Your task to perform on an android device: Open Youtube and go to "Your channel" Image 0: 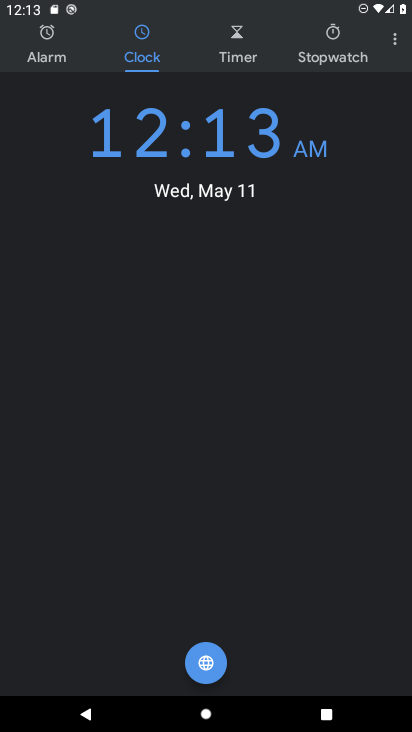
Step 0: drag from (273, 600) to (237, 121)
Your task to perform on an android device: Open Youtube and go to "Your channel" Image 1: 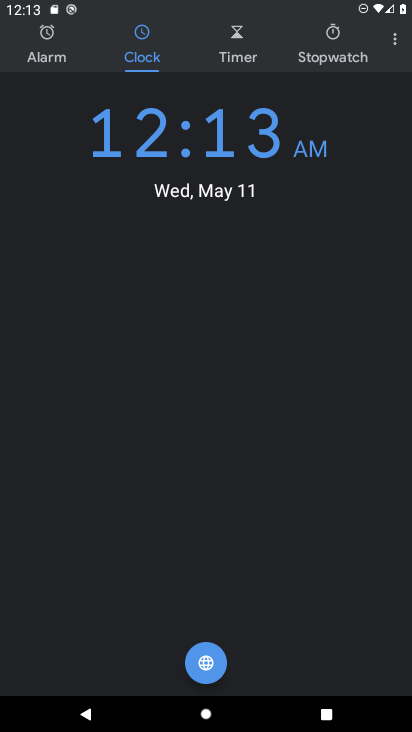
Step 1: press home button
Your task to perform on an android device: Open Youtube and go to "Your channel" Image 2: 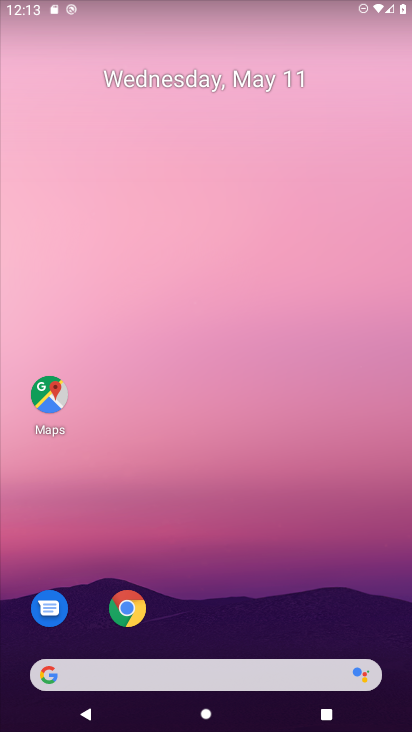
Step 2: drag from (254, 576) to (304, 46)
Your task to perform on an android device: Open Youtube and go to "Your channel" Image 3: 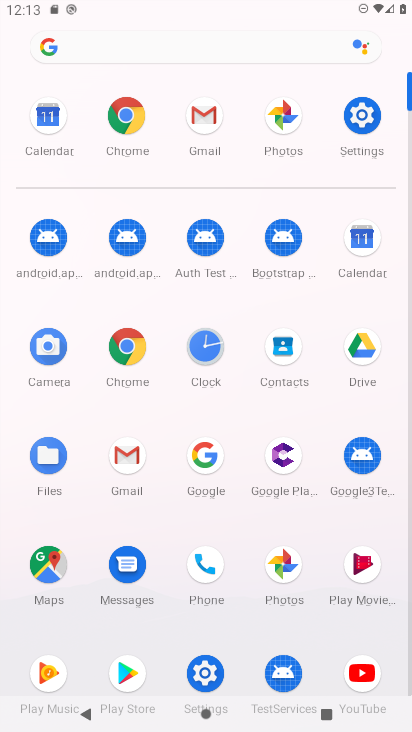
Step 3: click (357, 669)
Your task to perform on an android device: Open Youtube and go to "Your channel" Image 4: 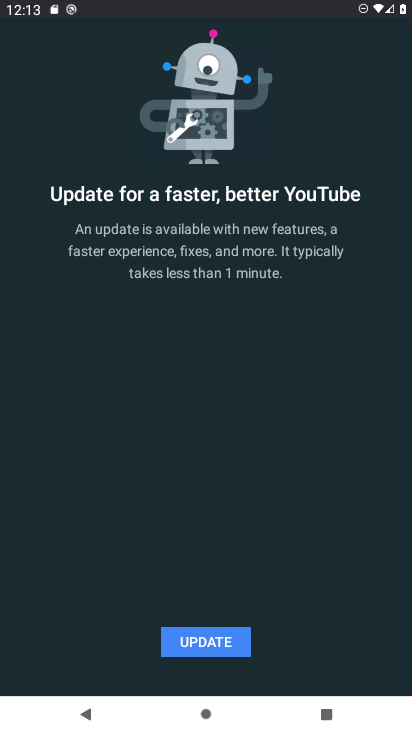
Step 4: click (234, 641)
Your task to perform on an android device: Open Youtube and go to "Your channel" Image 5: 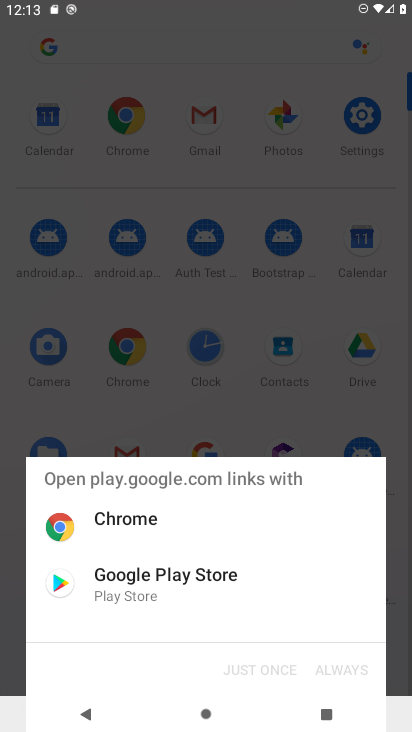
Step 5: click (148, 563)
Your task to perform on an android device: Open Youtube and go to "Your channel" Image 6: 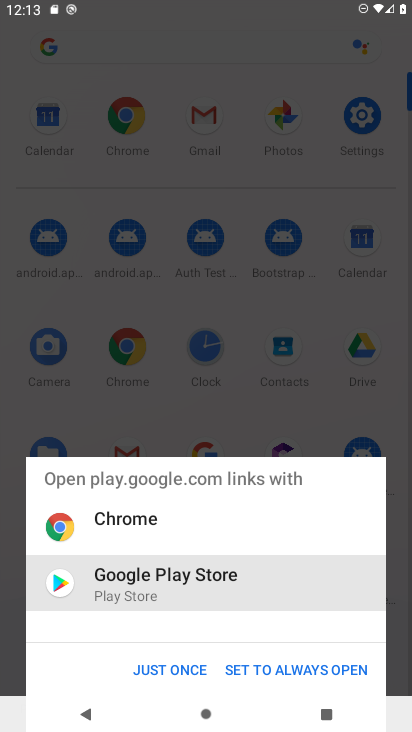
Step 6: click (179, 667)
Your task to perform on an android device: Open Youtube and go to "Your channel" Image 7: 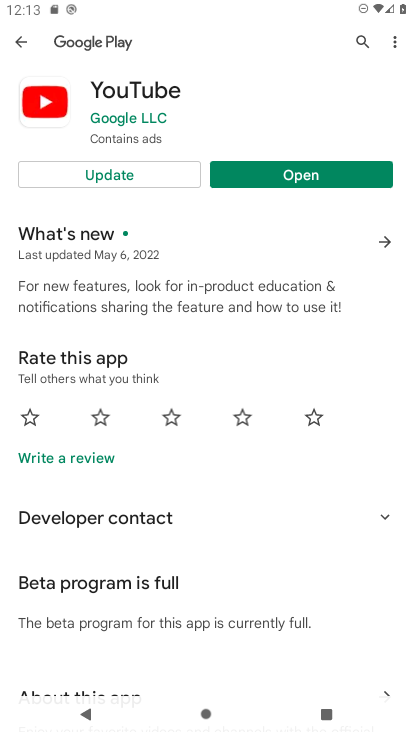
Step 7: click (258, 173)
Your task to perform on an android device: Open Youtube and go to "Your channel" Image 8: 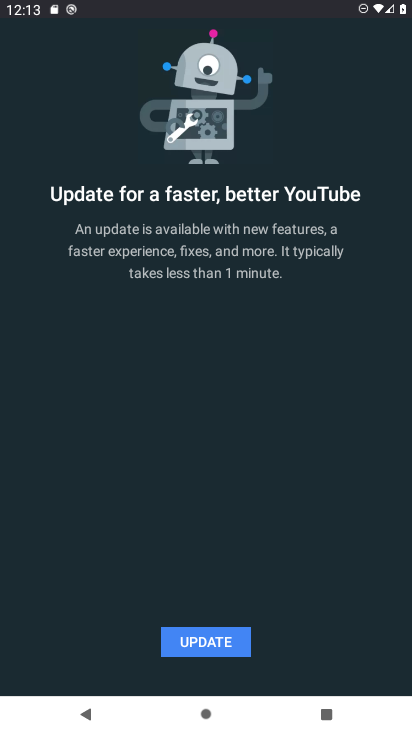
Step 8: click (226, 636)
Your task to perform on an android device: Open Youtube and go to "Your channel" Image 9: 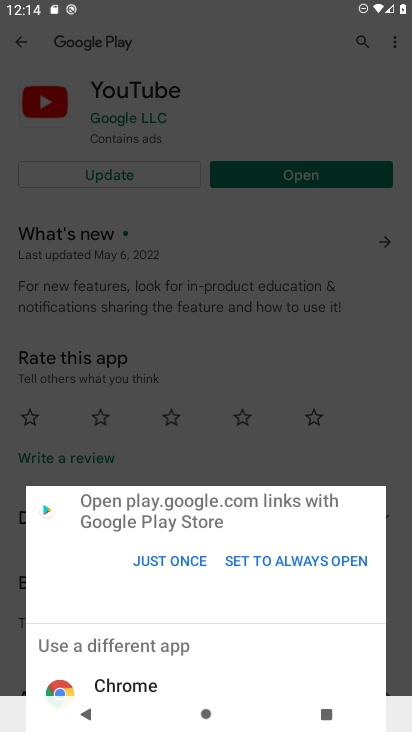
Step 9: click (177, 554)
Your task to perform on an android device: Open Youtube and go to "Your channel" Image 10: 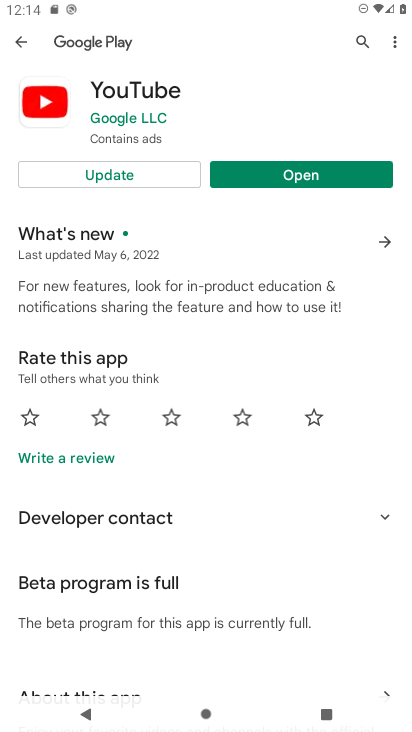
Step 10: click (329, 163)
Your task to perform on an android device: Open Youtube and go to "Your channel" Image 11: 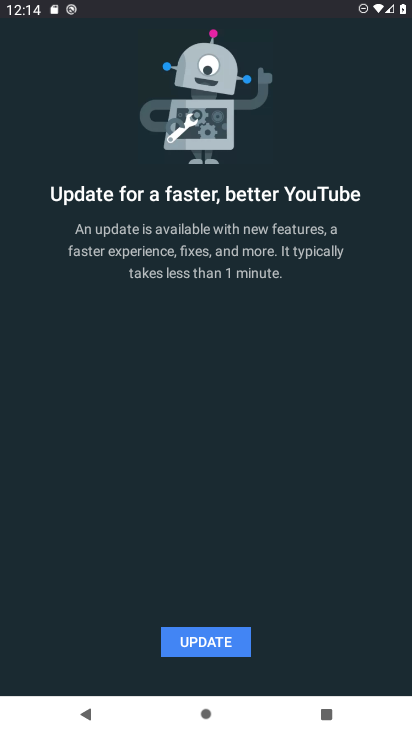
Step 11: click (224, 651)
Your task to perform on an android device: Open Youtube and go to "Your channel" Image 12: 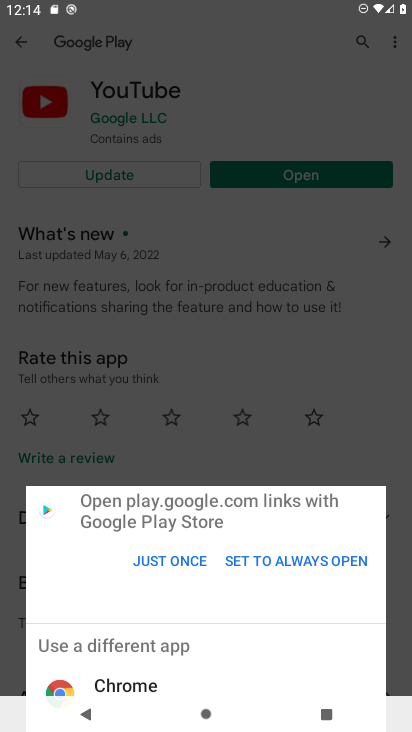
Step 12: click (192, 554)
Your task to perform on an android device: Open Youtube and go to "Your channel" Image 13: 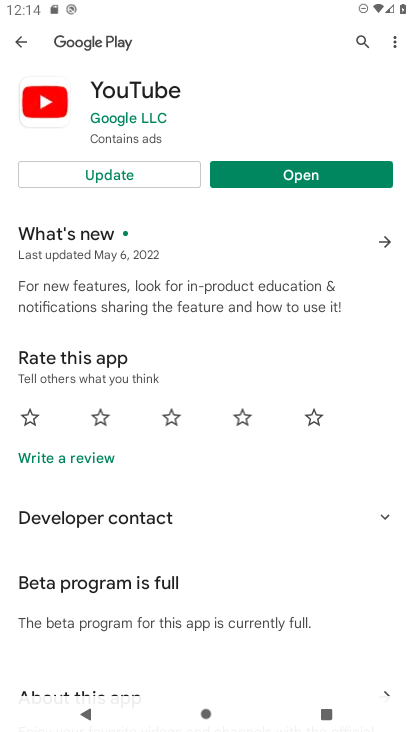
Step 13: click (145, 165)
Your task to perform on an android device: Open Youtube and go to "Your channel" Image 14: 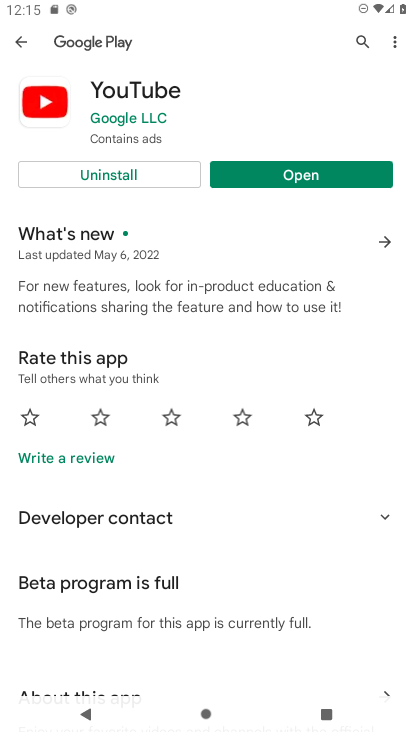
Step 14: click (283, 171)
Your task to perform on an android device: Open Youtube and go to "Your channel" Image 15: 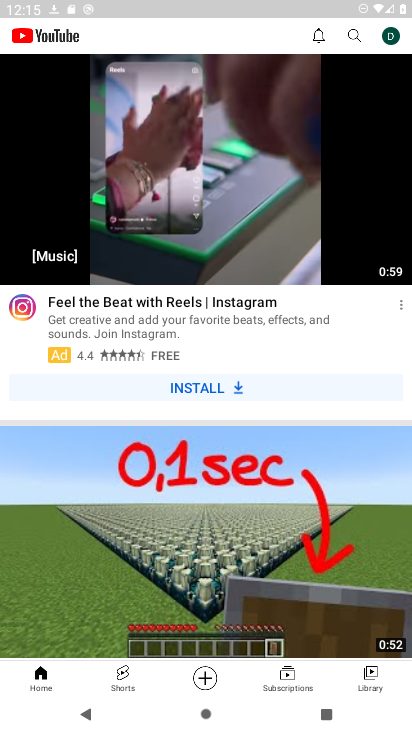
Step 15: click (395, 37)
Your task to perform on an android device: Open Youtube and go to "Your channel" Image 16: 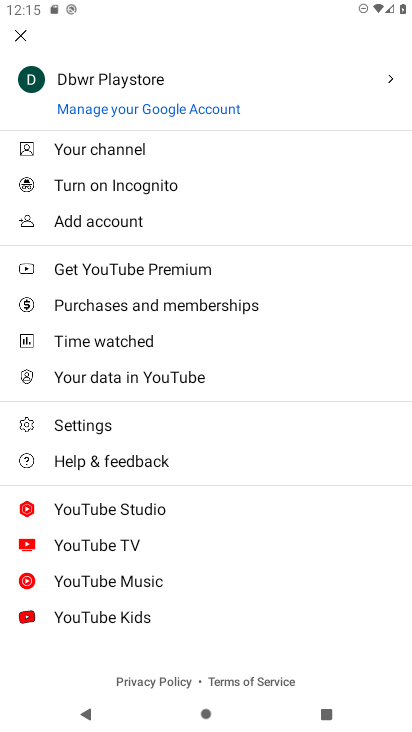
Step 16: click (137, 145)
Your task to perform on an android device: Open Youtube and go to "Your channel" Image 17: 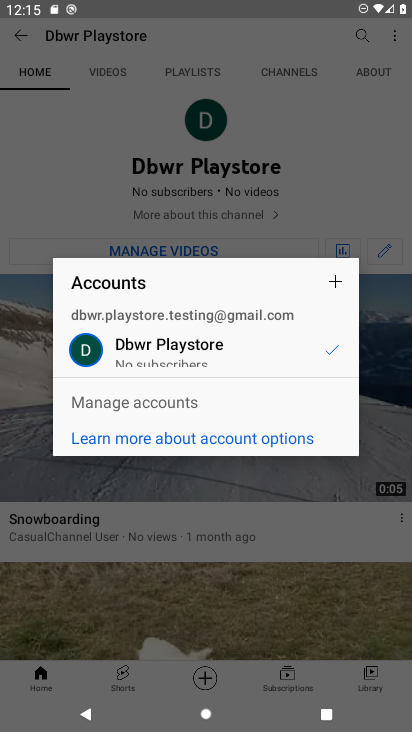
Step 17: click (222, 341)
Your task to perform on an android device: Open Youtube and go to "Your channel" Image 18: 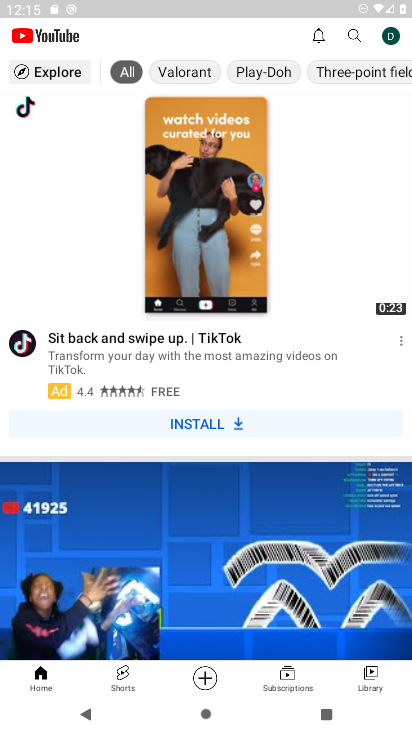
Step 18: click (392, 40)
Your task to perform on an android device: Open Youtube and go to "Your channel" Image 19: 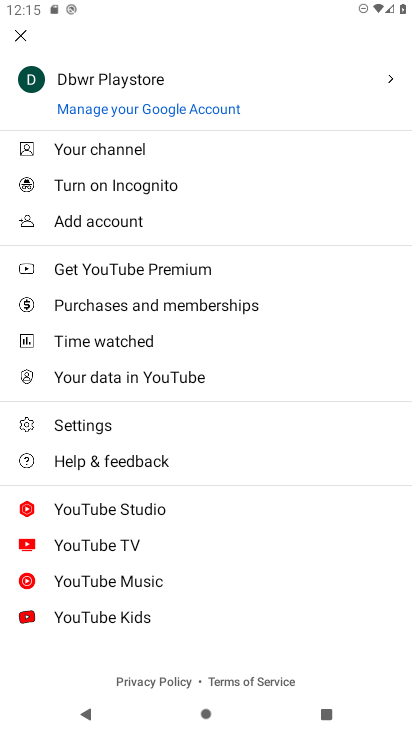
Step 19: click (133, 140)
Your task to perform on an android device: Open Youtube and go to "Your channel" Image 20: 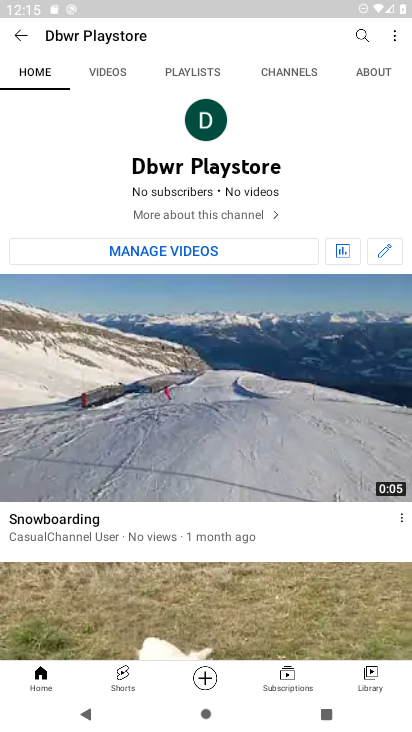
Step 20: task complete